Your task to perform on an android device: Show me productivity apps on the Play Store Image 0: 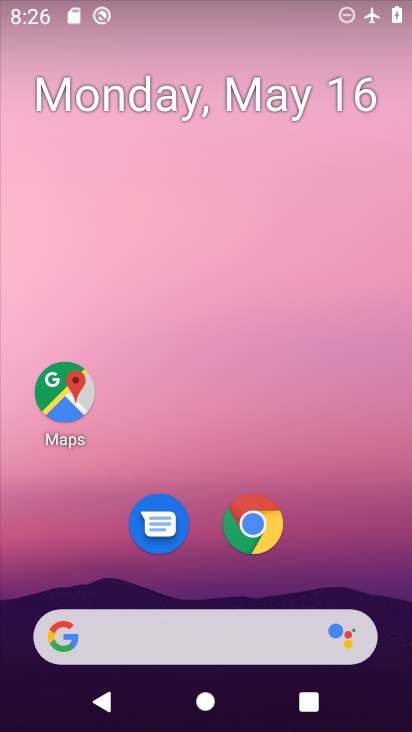
Step 0: drag from (317, 552) to (248, 105)
Your task to perform on an android device: Show me productivity apps on the Play Store Image 1: 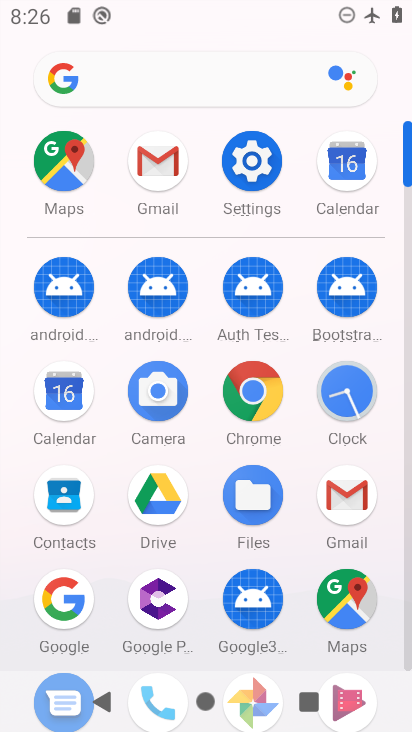
Step 1: drag from (193, 425) to (176, 205)
Your task to perform on an android device: Show me productivity apps on the Play Store Image 2: 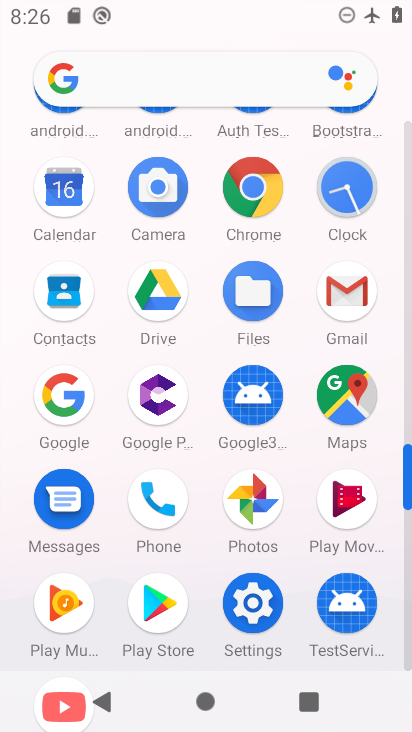
Step 2: click (154, 599)
Your task to perform on an android device: Show me productivity apps on the Play Store Image 3: 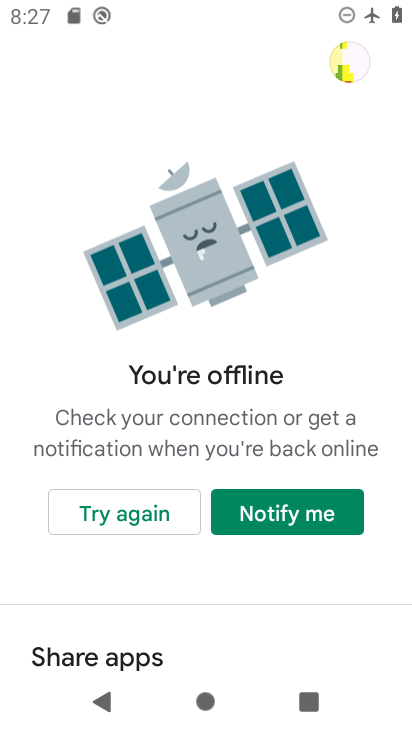
Step 3: task complete